Your task to perform on an android device: Open Maps and search for coffee Image 0: 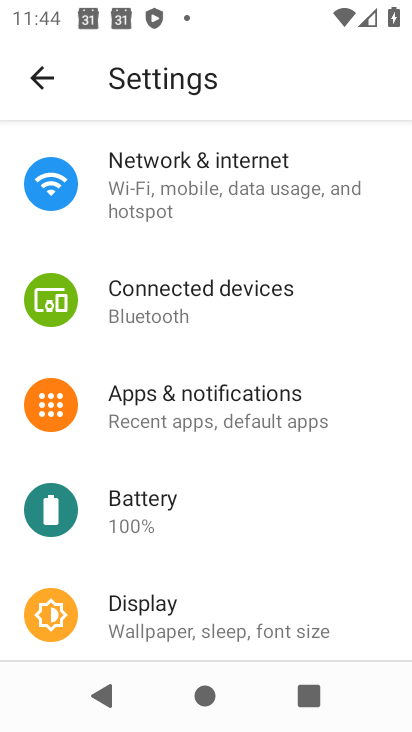
Step 0: press home button
Your task to perform on an android device: Open Maps and search for coffee Image 1: 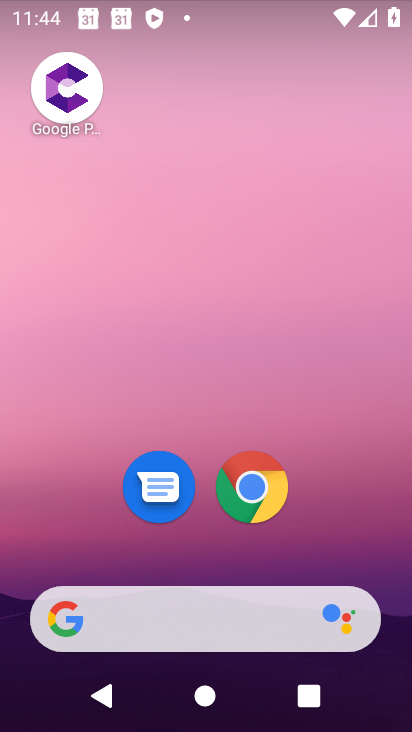
Step 1: drag from (382, 558) to (286, 74)
Your task to perform on an android device: Open Maps and search for coffee Image 2: 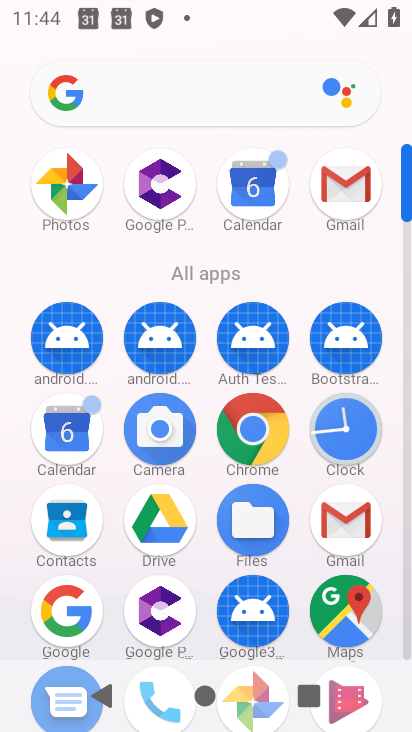
Step 2: click (354, 616)
Your task to perform on an android device: Open Maps and search for coffee Image 3: 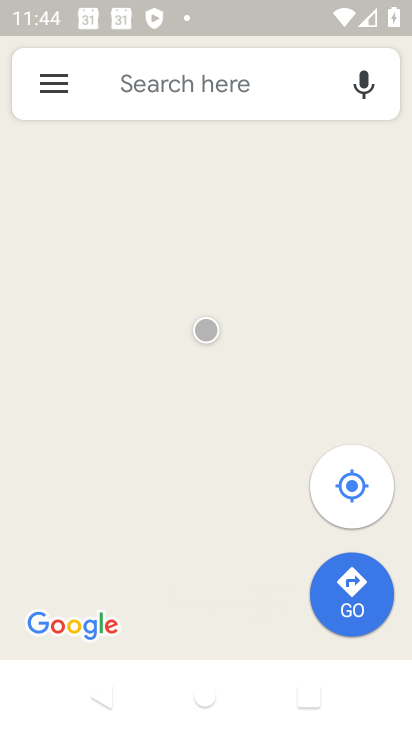
Step 3: click (212, 71)
Your task to perform on an android device: Open Maps and search for coffee Image 4: 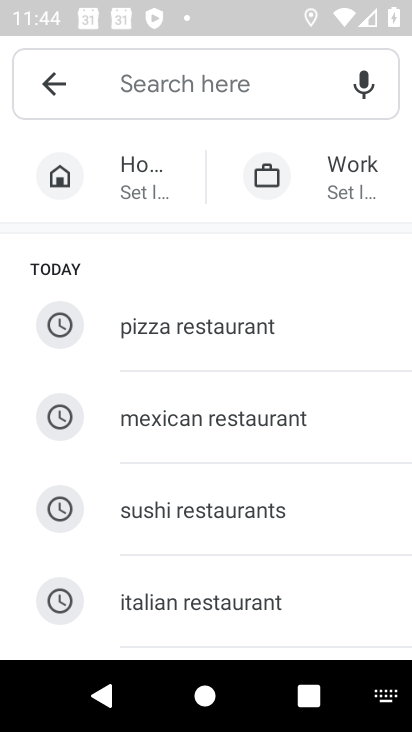
Step 4: type "coffee"
Your task to perform on an android device: Open Maps and search for coffee Image 5: 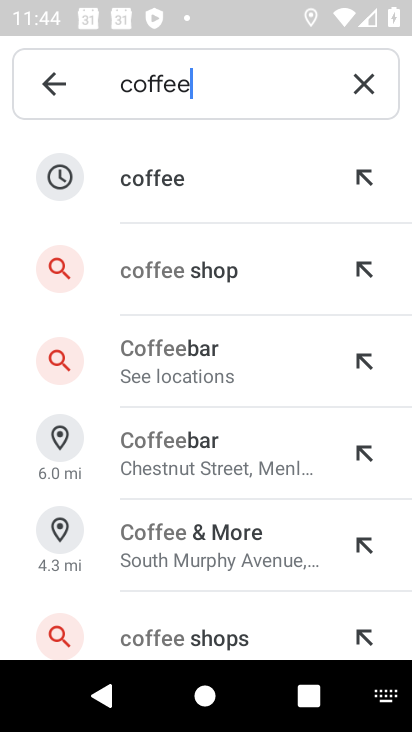
Step 5: click (179, 183)
Your task to perform on an android device: Open Maps and search for coffee Image 6: 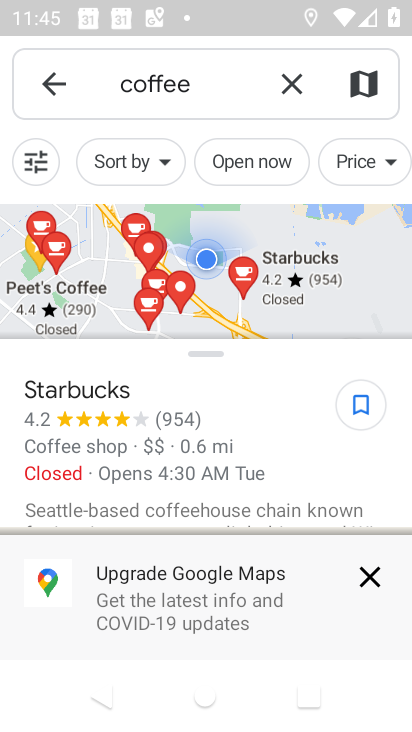
Step 6: task complete